Your task to perform on an android device: Show me recent news Image 0: 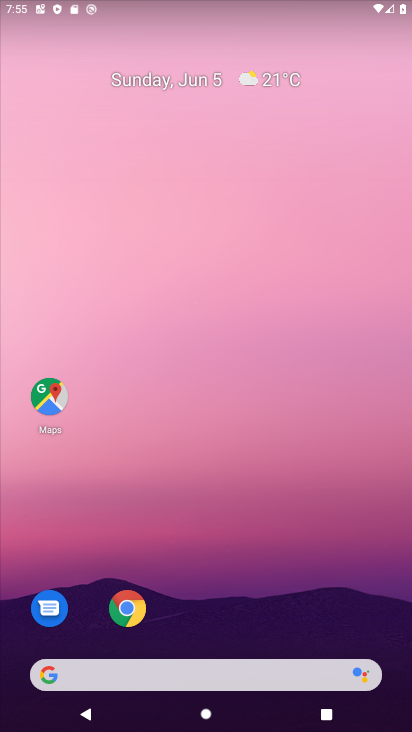
Step 0: drag from (324, 573) to (341, 269)
Your task to perform on an android device: Show me recent news Image 1: 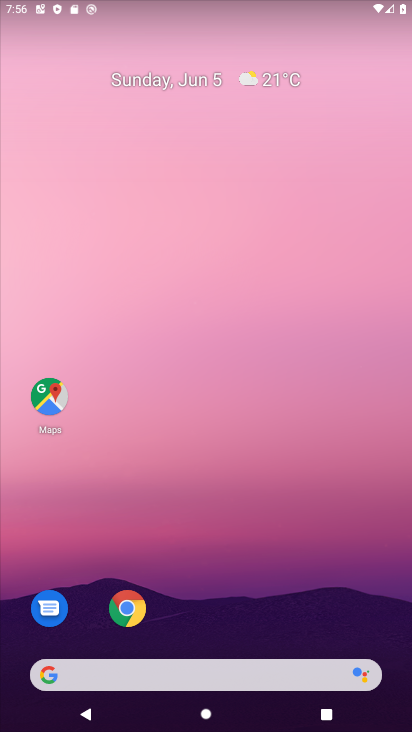
Step 1: click (115, 609)
Your task to perform on an android device: Show me recent news Image 2: 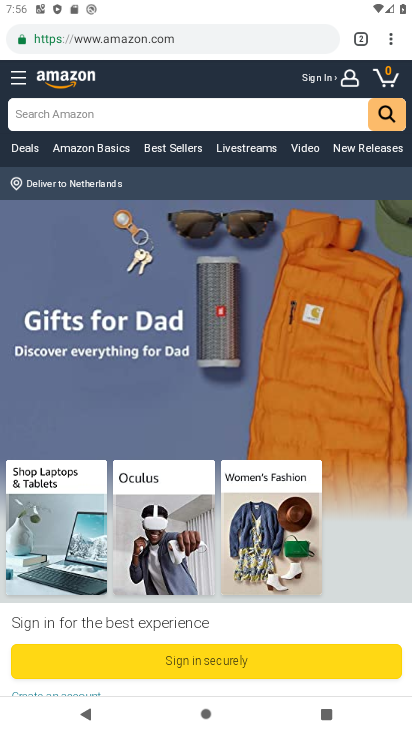
Step 2: click (360, 39)
Your task to perform on an android device: Show me recent news Image 3: 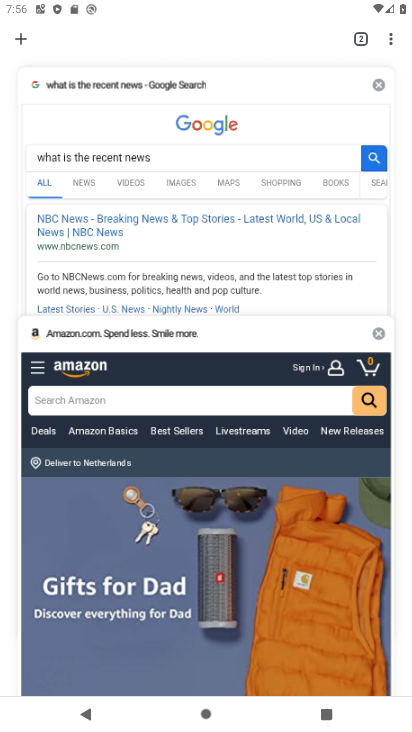
Step 3: click (14, 45)
Your task to perform on an android device: Show me recent news Image 4: 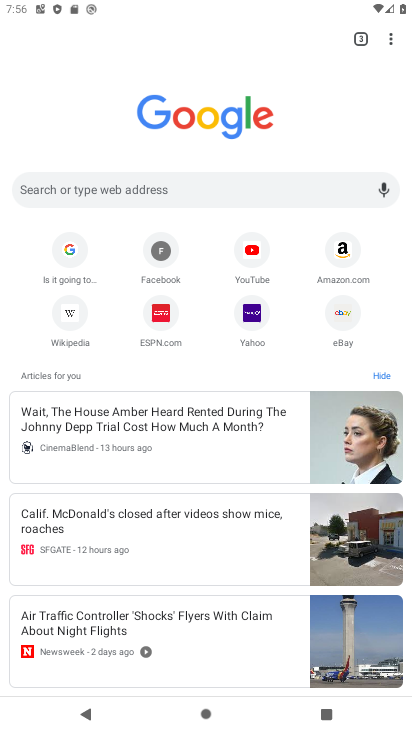
Step 4: click (167, 189)
Your task to perform on an android device: Show me recent news Image 5: 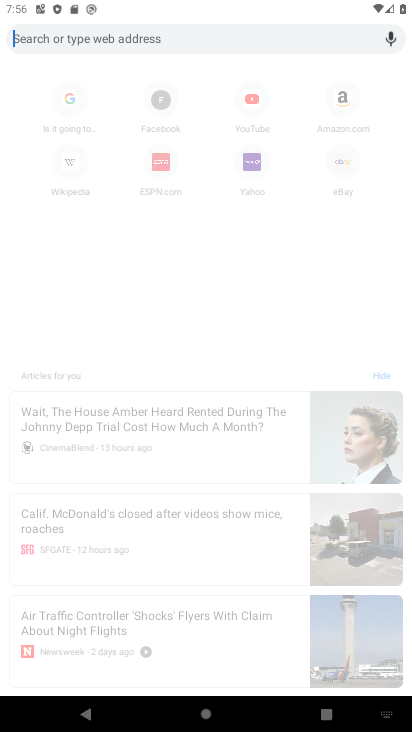
Step 5: type "show me recent news"
Your task to perform on an android device: Show me recent news Image 6: 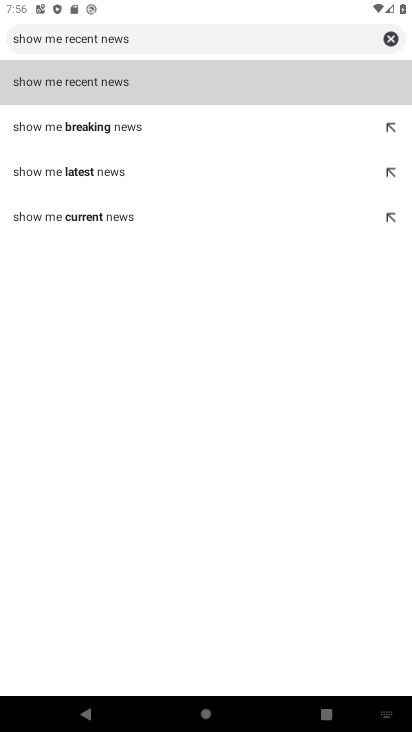
Step 6: click (149, 88)
Your task to perform on an android device: Show me recent news Image 7: 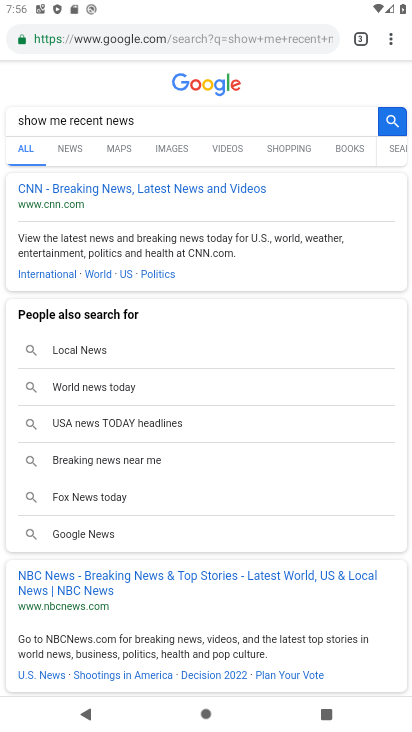
Step 7: task complete